Your task to perform on an android device: turn pop-ups on in chrome Image 0: 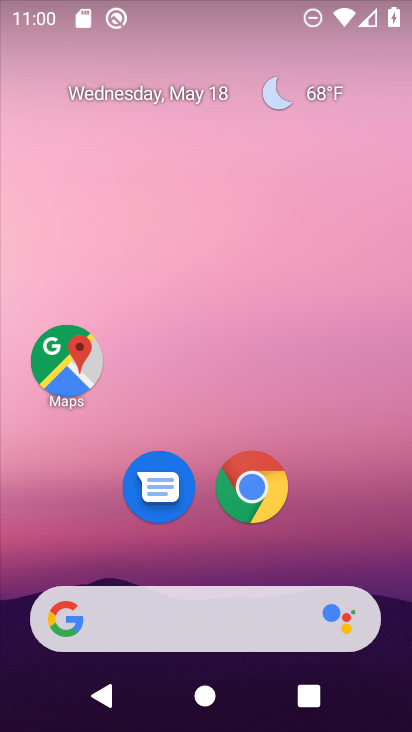
Step 0: drag from (345, 510) to (345, 152)
Your task to perform on an android device: turn pop-ups on in chrome Image 1: 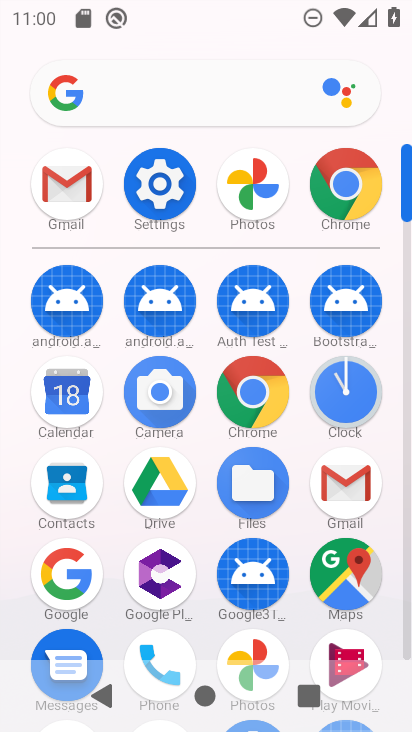
Step 1: click (353, 201)
Your task to perform on an android device: turn pop-ups on in chrome Image 2: 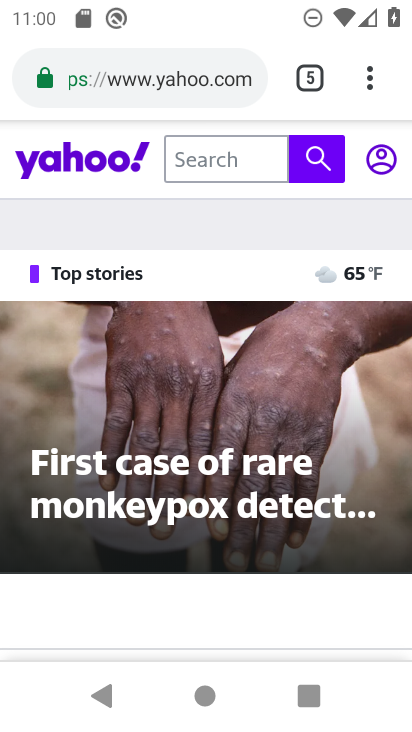
Step 2: drag from (379, 86) to (167, 547)
Your task to perform on an android device: turn pop-ups on in chrome Image 3: 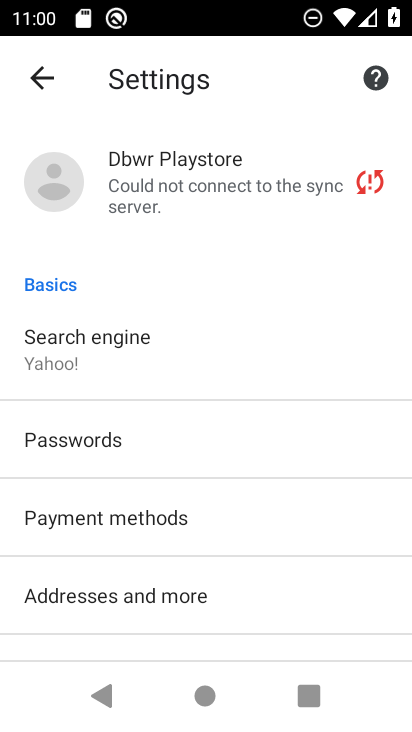
Step 3: drag from (228, 574) to (242, 280)
Your task to perform on an android device: turn pop-ups on in chrome Image 4: 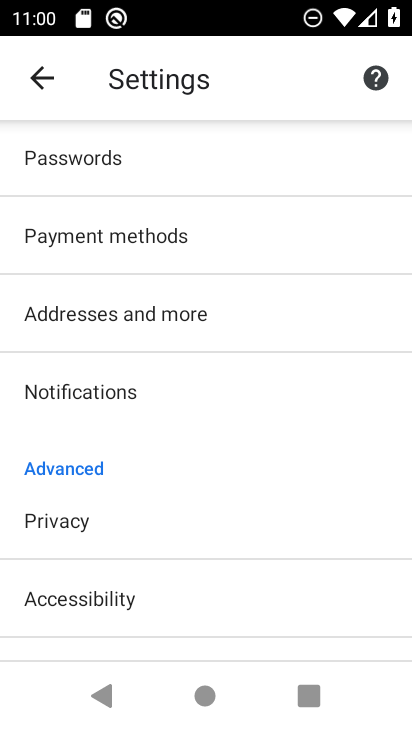
Step 4: drag from (257, 589) to (257, 408)
Your task to perform on an android device: turn pop-ups on in chrome Image 5: 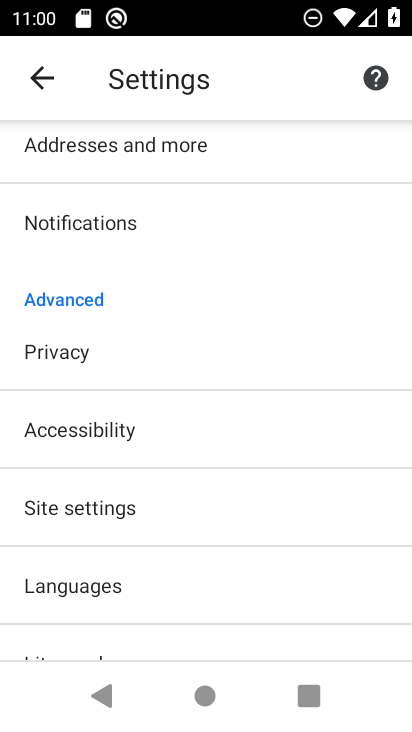
Step 5: click (255, 538)
Your task to perform on an android device: turn pop-ups on in chrome Image 6: 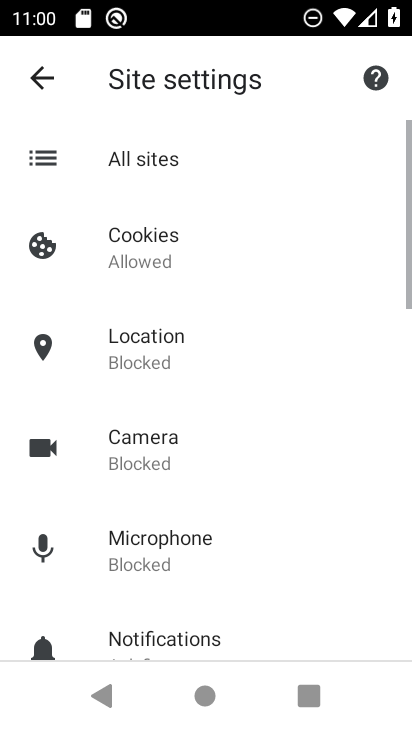
Step 6: drag from (282, 630) to (282, 380)
Your task to perform on an android device: turn pop-ups on in chrome Image 7: 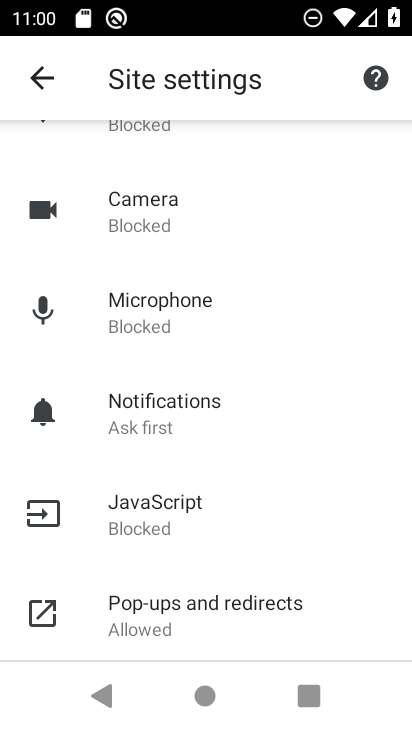
Step 7: click (302, 599)
Your task to perform on an android device: turn pop-ups on in chrome Image 8: 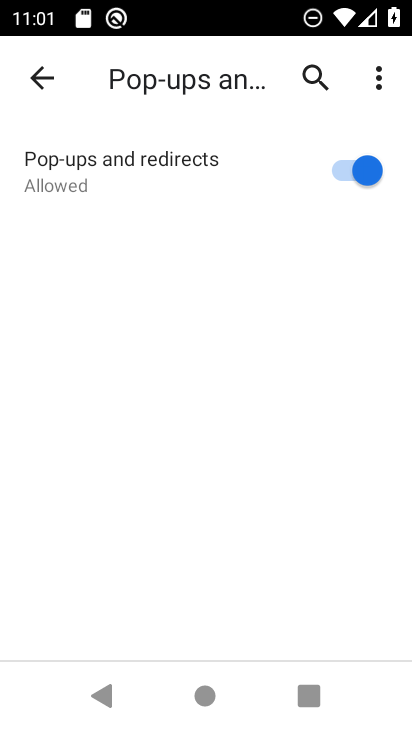
Step 8: task complete